Your task to perform on an android device: change the clock display to show seconds Image 0: 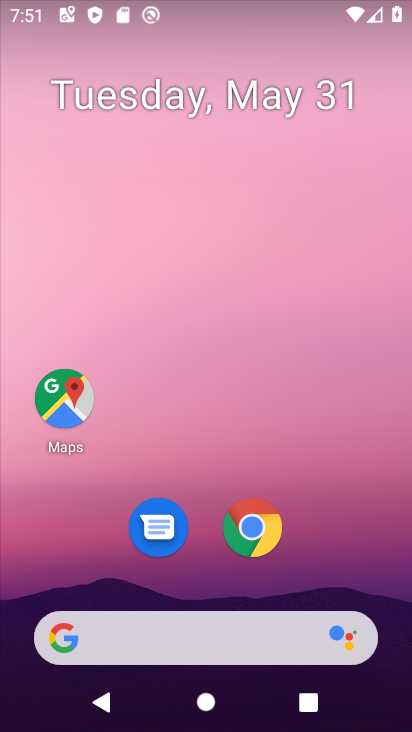
Step 0: drag from (317, 507) to (211, 20)
Your task to perform on an android device: change the clock display to show seconds Image 1: 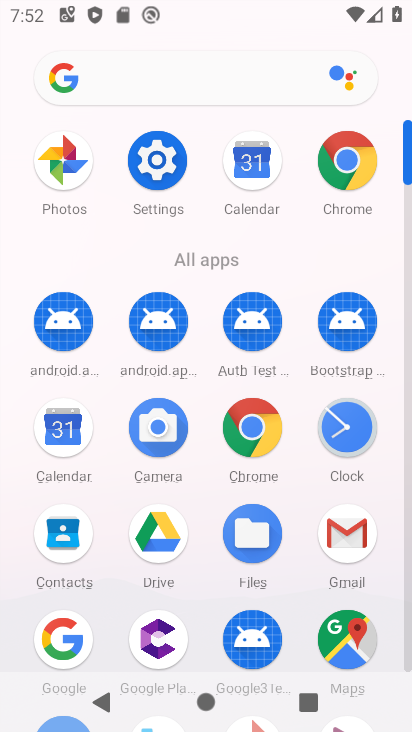
Step 1: click (346, 427)
Your task to perform on an android device: change the clock display to show seconds Image 2: 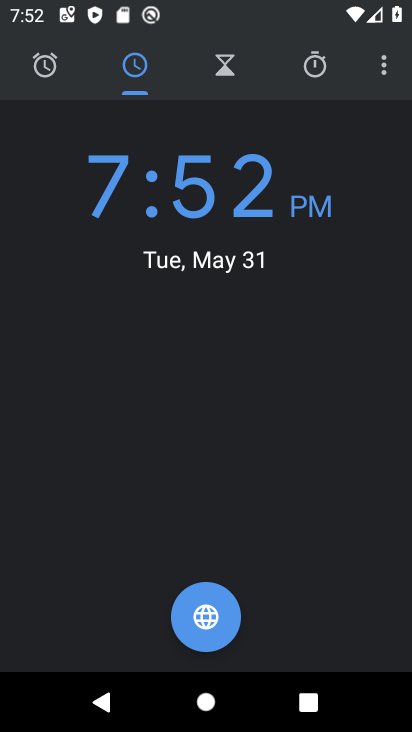
Step 2: click (381, 61)
Your task to perform on an android device: change the clock display to show seconds Image 3: 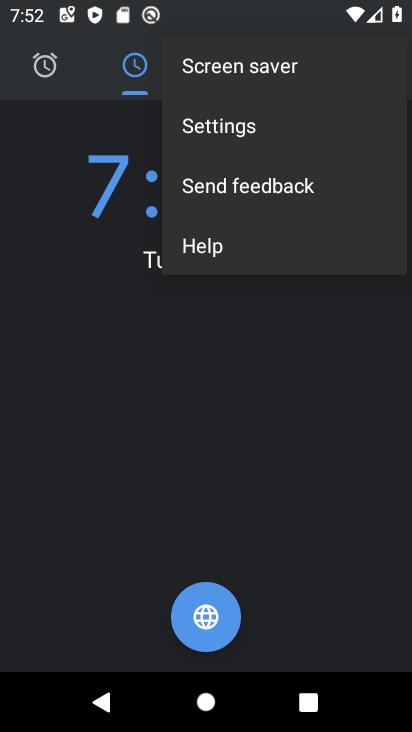
Step 3: click (233, 130)
Your task to perform on an android device: change the clock display to show seconds Image 4: 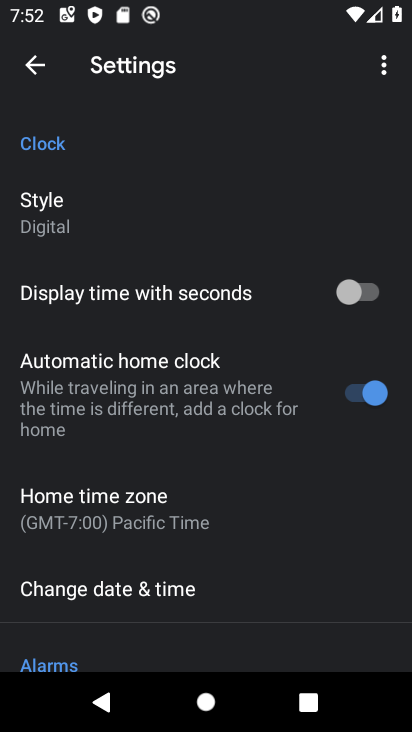
Step 4: click (342, 291)
Your task to perform on an android device: change the clock display to show seconds Image 5: 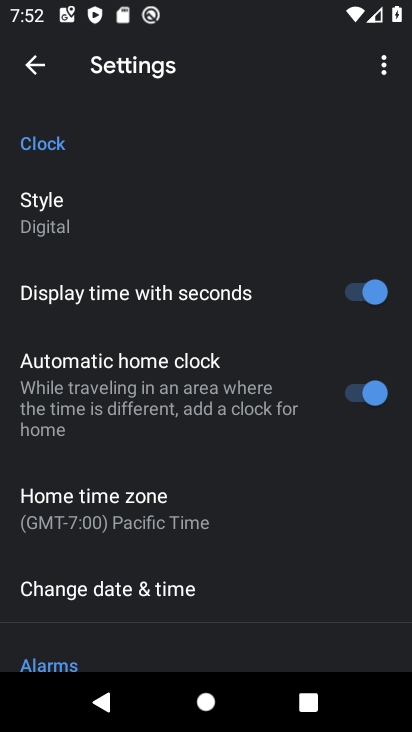
Step 5: task complete